Your task to perform on an android device: Search for sushi restaurants on Maps Image 0: 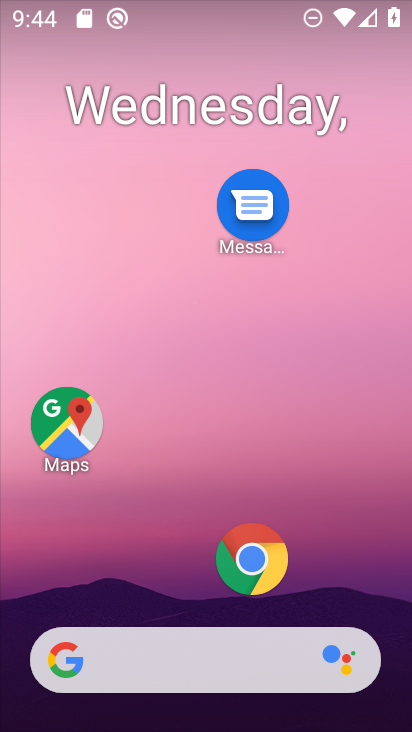
Step 0: drag from (171, 599) to (232, 138)
Your task to perform on an android device: Search for sushi restaurants on Maps Image 1: 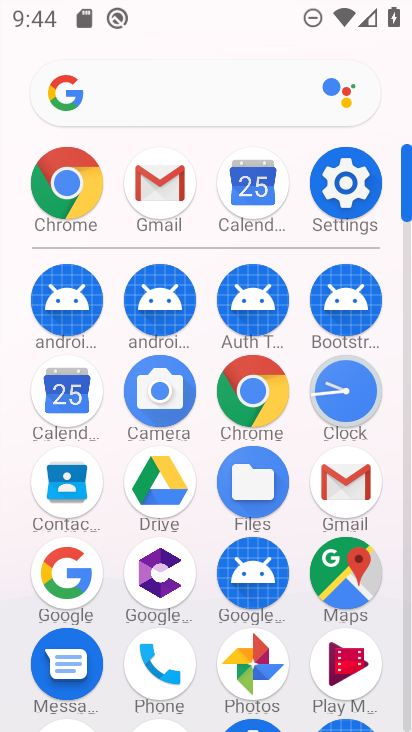
Step 1: click (343, 577)
Your task to perform on an android device: Search for sushi restaurants on Maps Image 2: 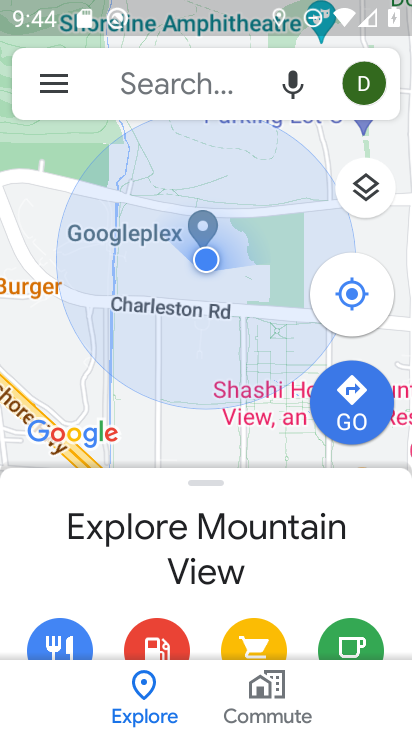
Step 2: click (165, 76)
Your task to perform on an android device: Search for sushi restaurants on Maps Image 3: 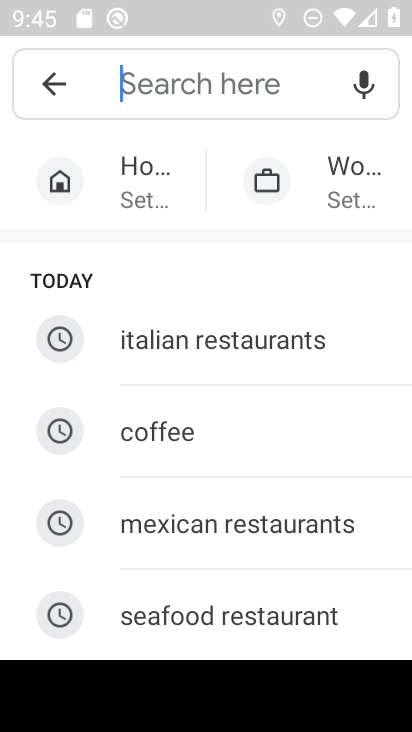
Step 3: drag from (179, 474) to (198, 142)
Your task to perform on an android device: Search for sushi restaurants on Maps Image 4: 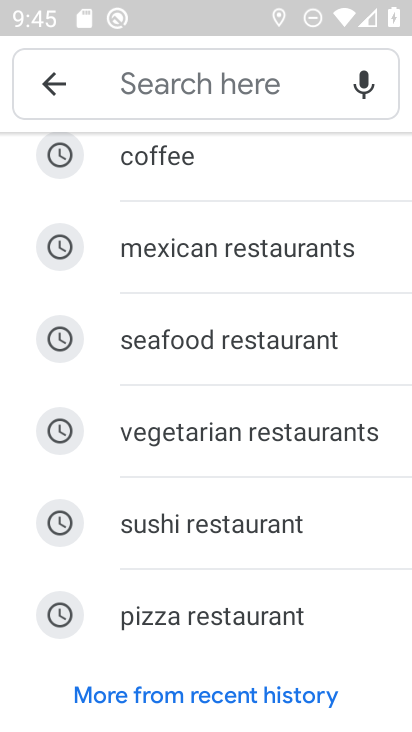
Step 4: click (214, 529)
Your task to perform on an android device: Search for sushi restaurants on Maps Image 5: 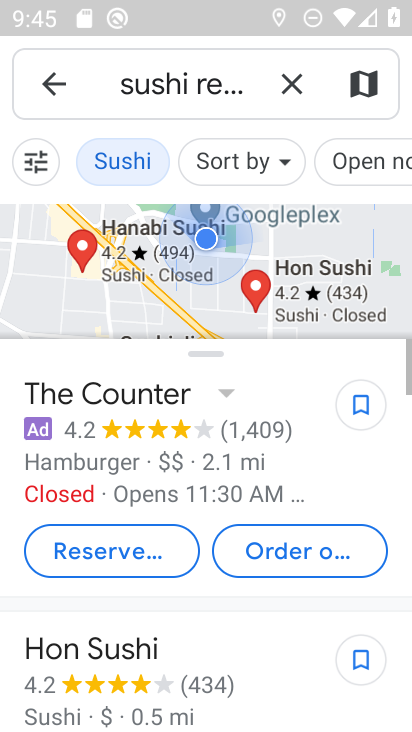
Step 5: task complete